Your task to perform on an android device: Open Amazon Image 0: 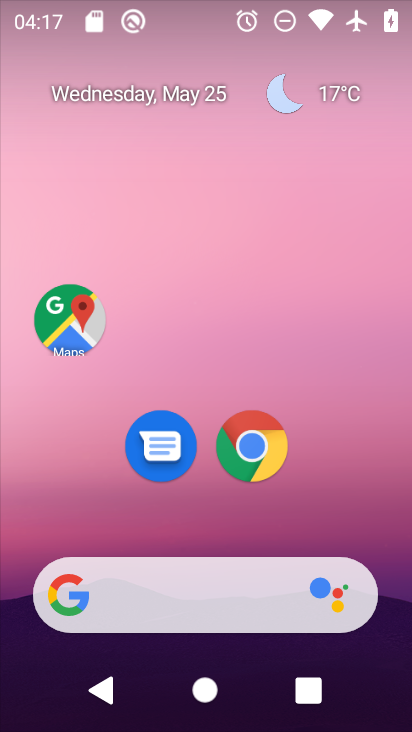
Step 0: drag from (226, 585) to (186, 106)
Your task to perform on an android device: Open Amazon Image 1: 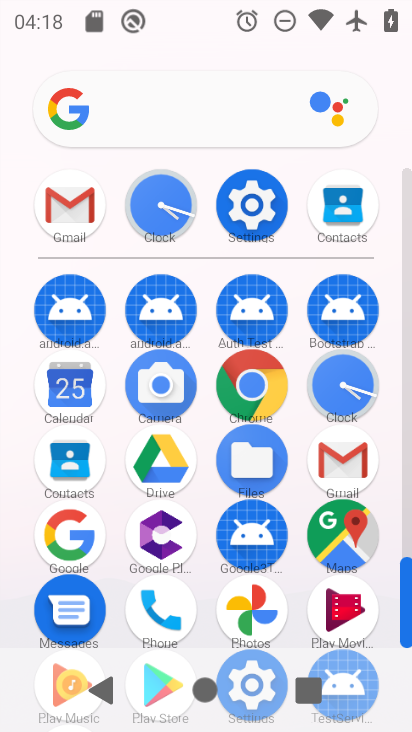
Step 1: click (250, 389)
Your task to perform on an android device: Open Amazon Image 2: 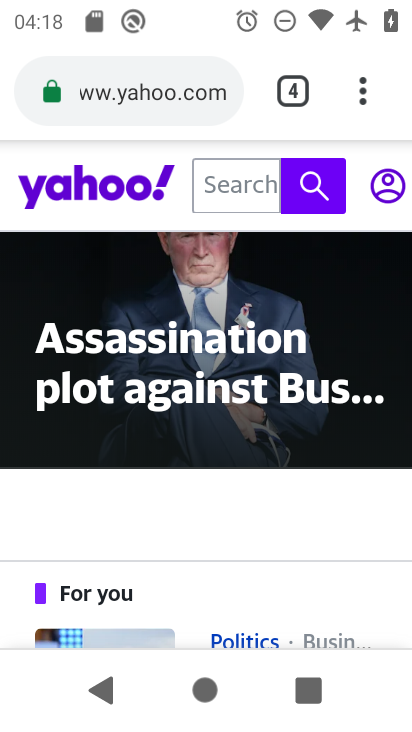
Step 2: click (203, 106)
Your task to perform on an android device: Open Amazon Image 3: 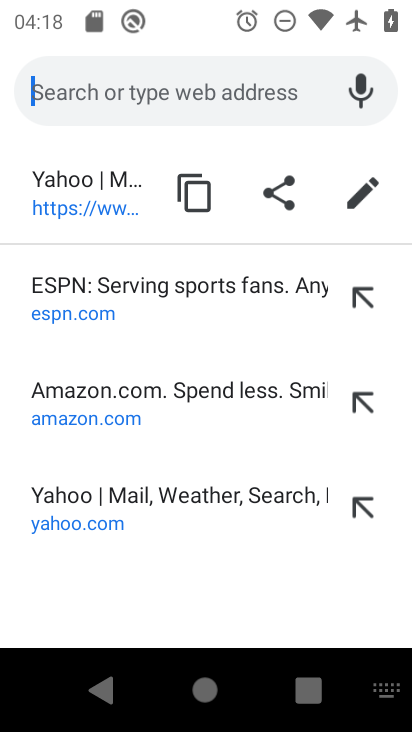
Step 3: click (206, 398)
Your task to perform on an android device: Open Amazon Image 4: 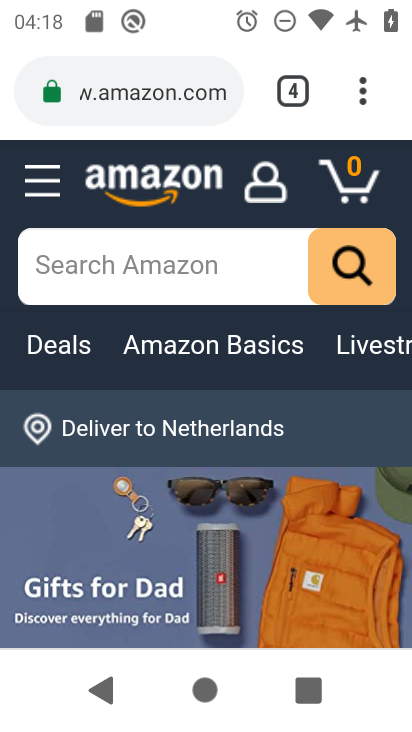
Step 4: task complete